Your task to perform on an android device: toggle show notifications on the lock screen Image 0: 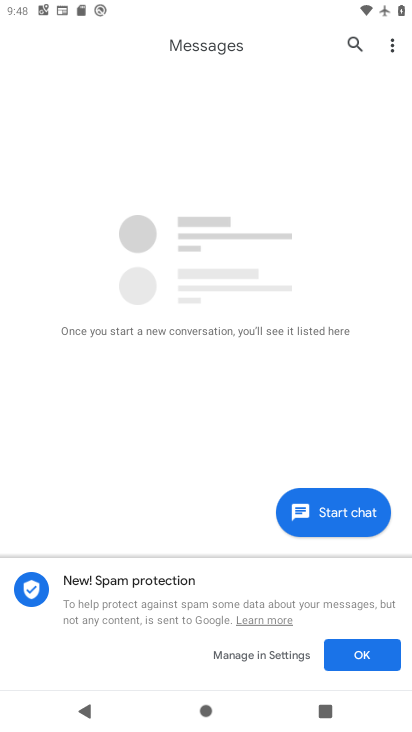
Step 0: press home button
Your task to perform on an android device: toggle show notifications on the lock screen Image 1: 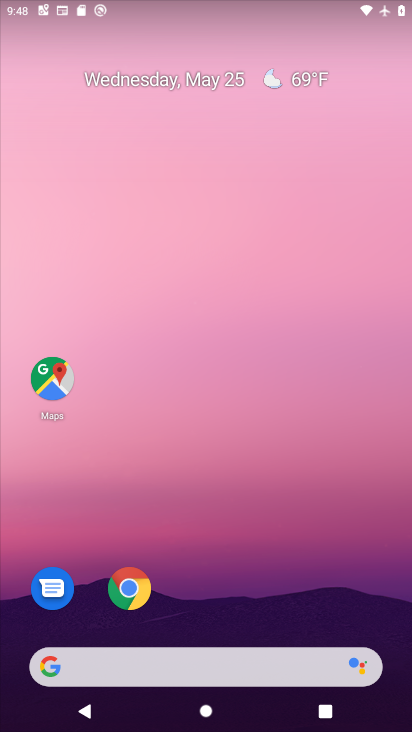
Step 1: drag from (369, 593) to (381, 164)
Your task to perform on an android device: toggle show notifications on the lock screen Image 2: 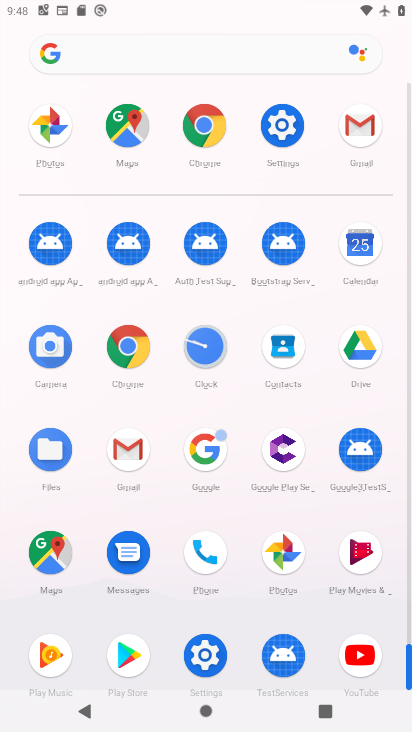
Step 2: click (284, 127)
Your task to perform on an android device: toggle show notifications on the lock screen Image 3: 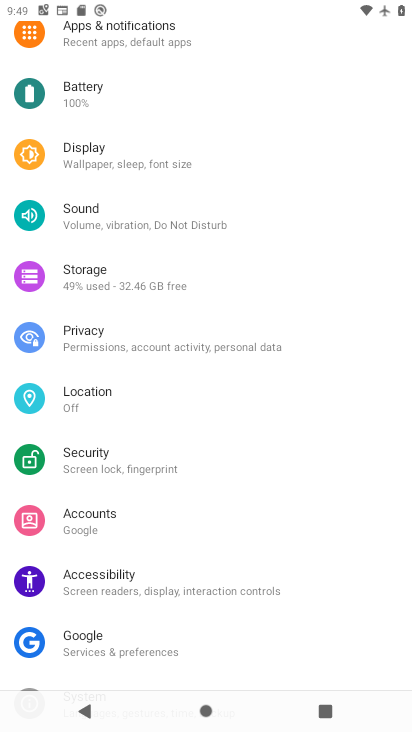
Step 3: drag from (349, 422) to (367, 335)
Your task to perform on an android device: toggle show notifications on the lock screen Image 4: 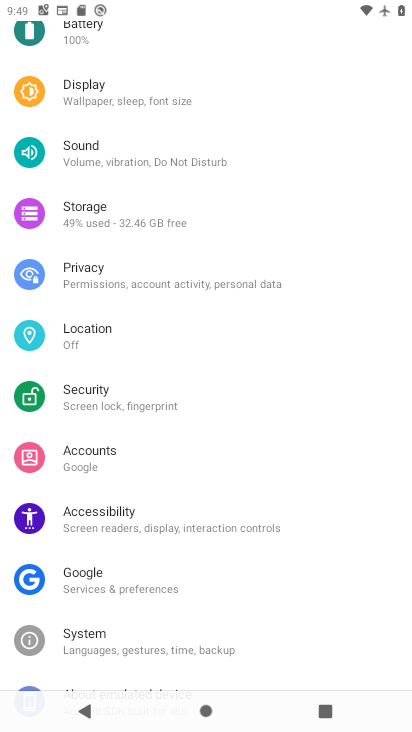
Step 4: drag from (347, 555) to (352, 458)
Your task to perform on an android device: toggle show notifications on the lock screen Image 5: 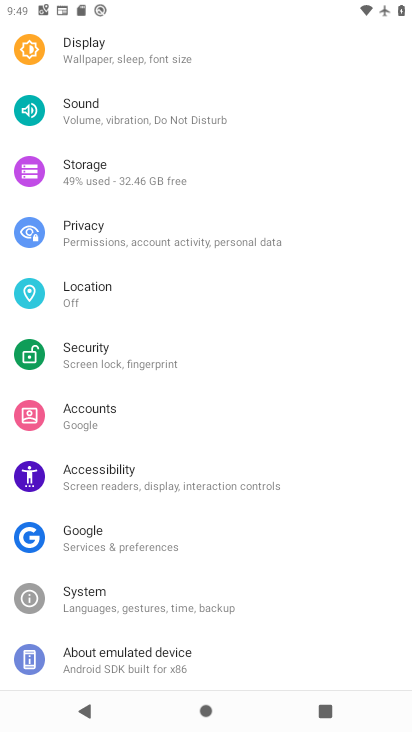
Step 5: drag from (331, 600) to (346, 422)
Your task to perform on an android device: toggle show notifications on the lock screen Image 6: 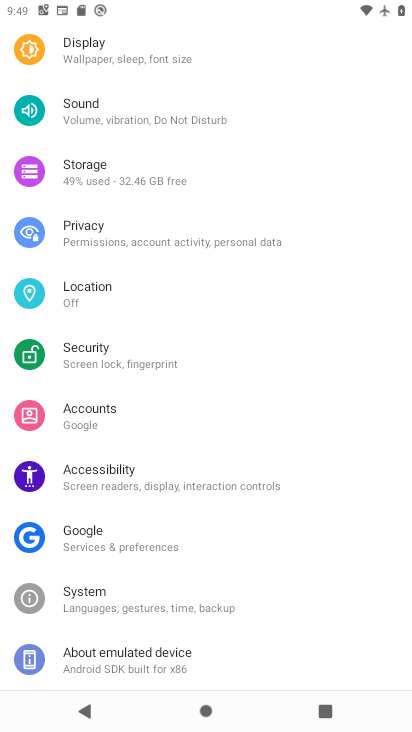
Step 6: drag from (330, 332) to (330, 450)
Your task to perform on an android device: toggle show notifications on the lock screen Image 7: 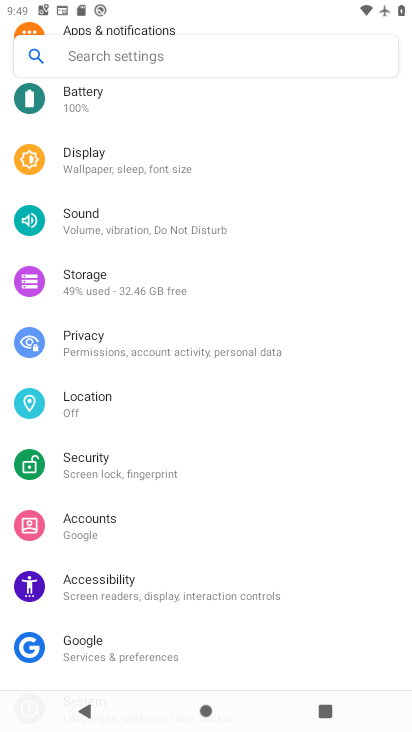
Step 7: drag from (330, 309) to (337, 399)
Your task to perform on an android device: toggle show notifications on the lock screen Image 8: 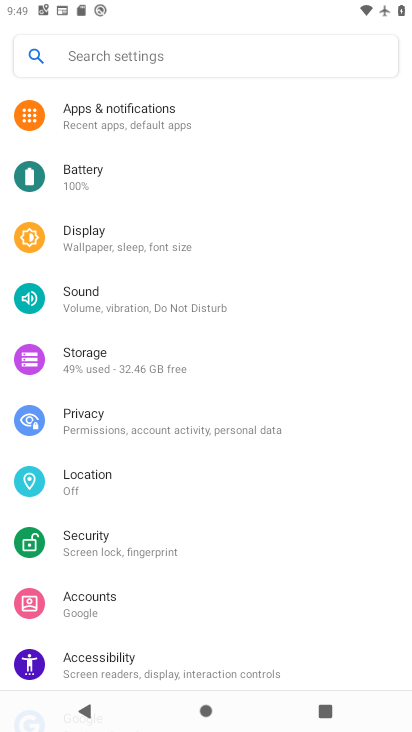
Step 8: drag from (328, 288) to (337, 431)
Your task to perform on an android device: toggle show notifications on the lock screen Image 9: 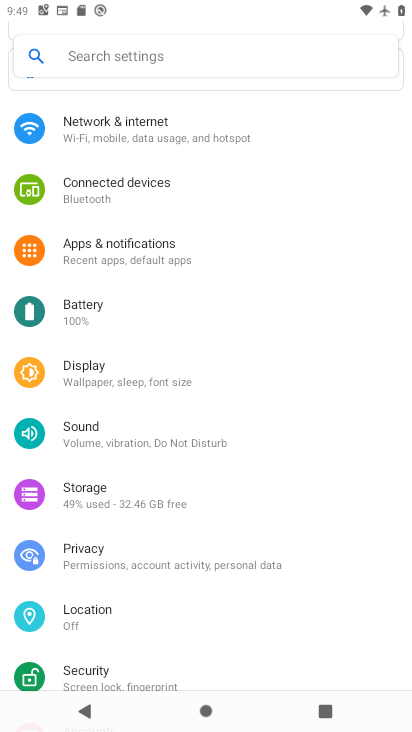
Step 9: drag from (308, 284) to (316, 419)
Your task to perform on an android device: toggle show notifications on the lock screen Image 10: 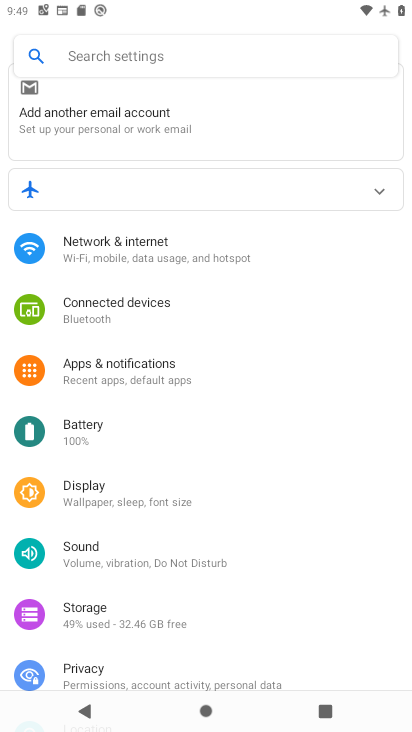
Step 10: drag from (294, 249) to (306, 381)
Your task to perform on an android device: toggle show notifications on the lock screen Image 11: 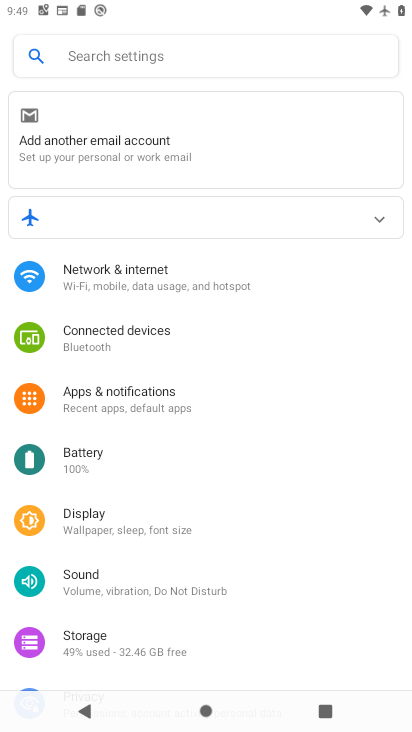
Step 11: click (167, 398)
Your task to perform on an android device: toggle show notifications on the lock screen Image 12: 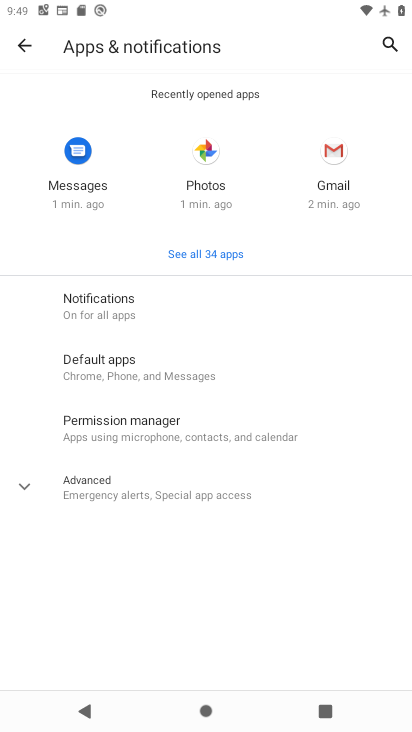
Step 12: click (110, 288)
Your task to perform on an android device: toggle show notifications on the lock screen Image 13: 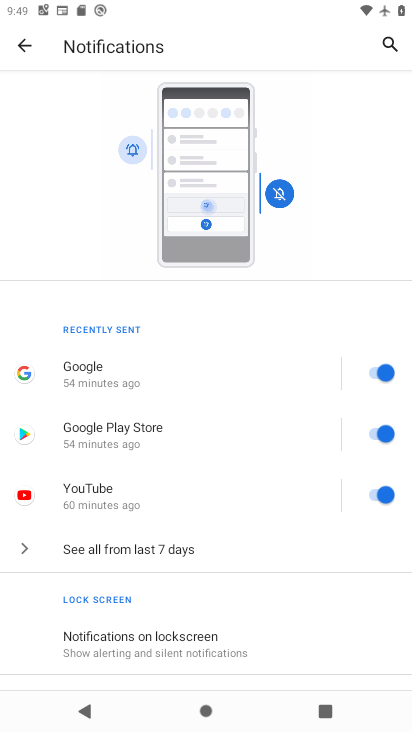
Step 13: drag from (272, 541) to (270, 364)
Your task to perform on an android device: toggle show notifications on the lock screen Image 14: 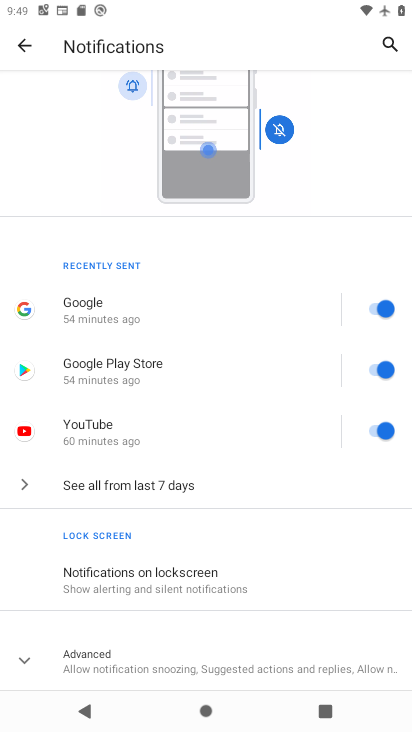
Step 14: click (276, 579)
Your task to perform on an android device: toggle show notifications on the lock screen Image 15: 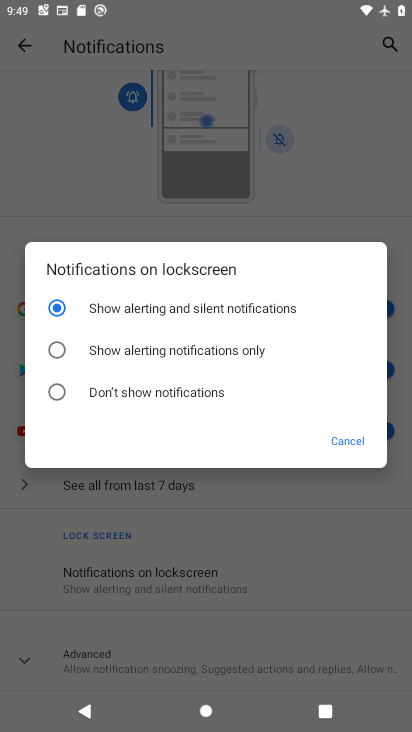
Step 15: click (132, 338)
Your task to perform on an android device: toggle show notifications on the lock screen Image 16: 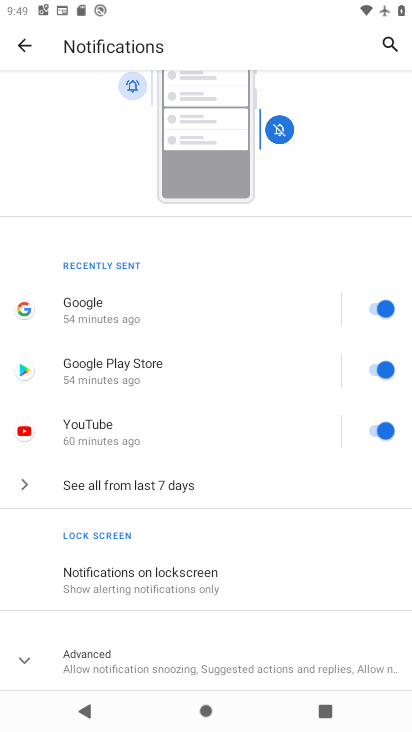
Step 16: task complete